Your task to perform on an android device: Open the calendar app, open the side menu, and click the "Day" option Image 0: 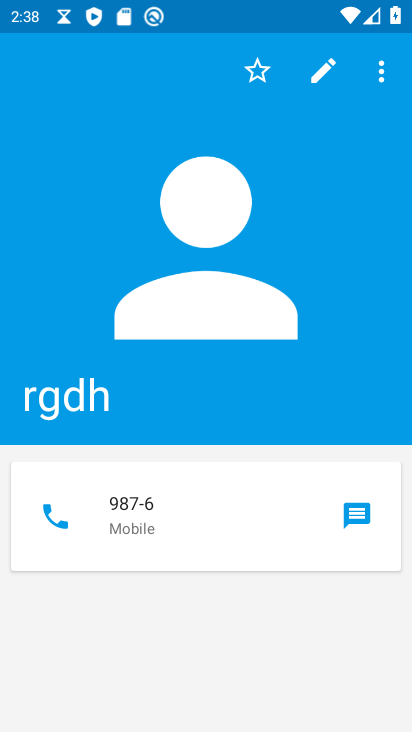
Step 0: press home button
Your task to perform on an android device: Open the calendar app, open the side menu, and click the "Day" option Image 1: 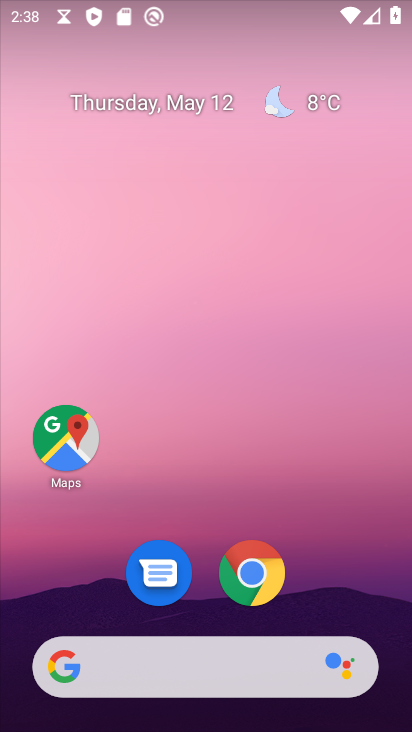
Step 1: drag from (327, 588) to (403, 58)
Your task to perform on an android device: Open the calendar app, open the side menu, and click the "Day" option Image 2: 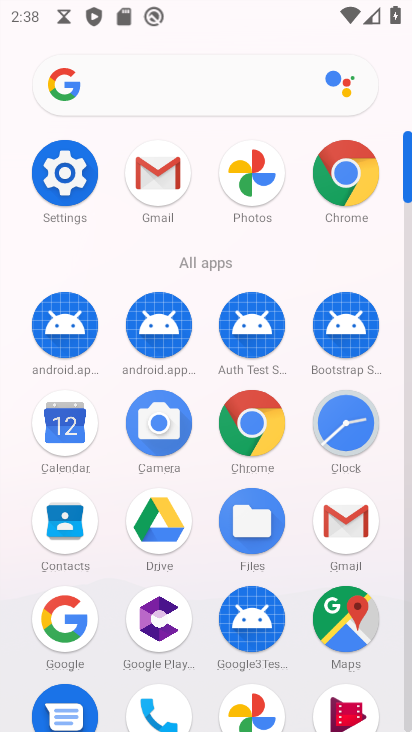
Step 2: click (71, 431)
Your task to perform on an android device: Open the calendar app, open the side menu, and click the "Day" option Image 3: 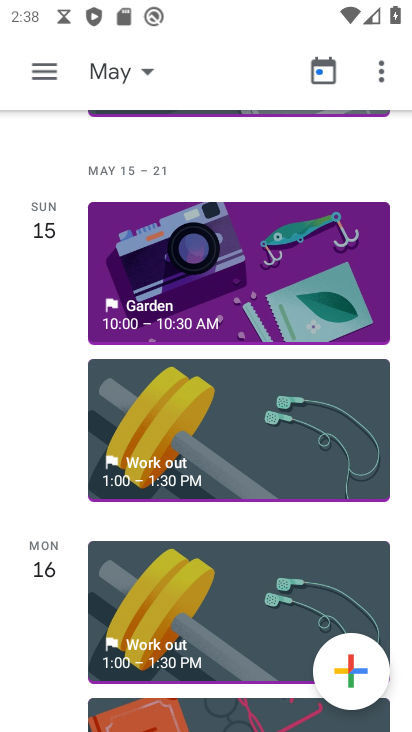
Step 3: click (38, 67)
Your task to perform on an android device: Open the calendar app, open the side menu, and click the "Day" option Image 4: 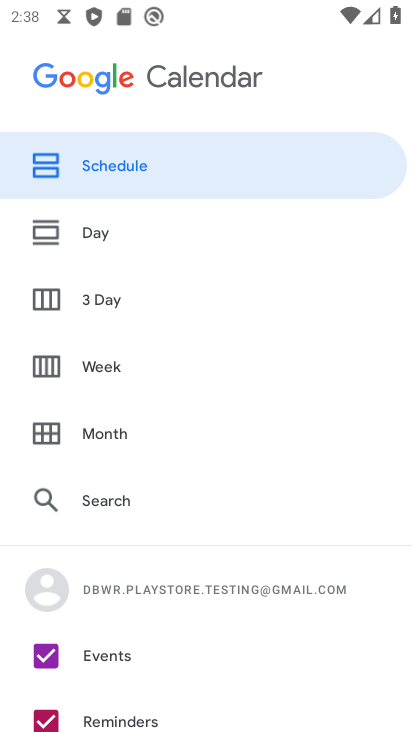
Step 4: click (83, 232)
Your task to perform on an android device: Open the calendar app, open the side menu, and click the "Day" option Image 5: 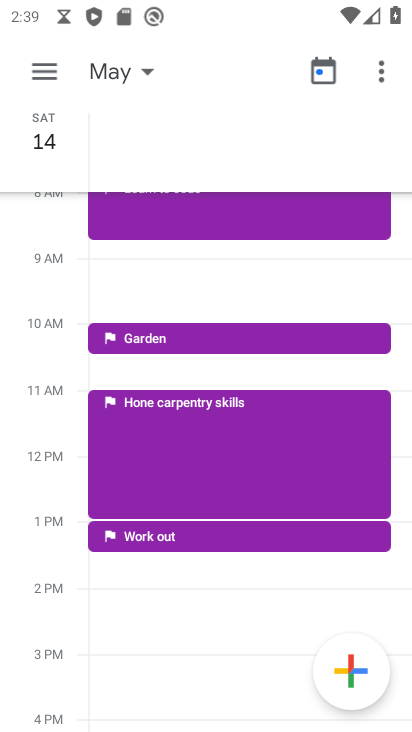
Step 5: task complete